Your task to perform on an android device: Open settings on Google Maps Image 0: 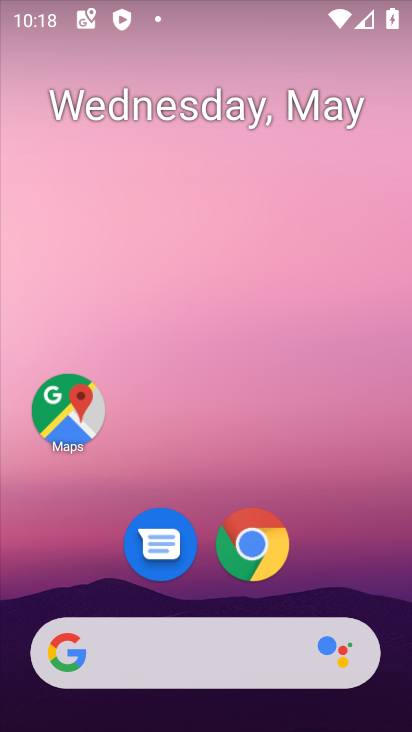
Step 0: drag from (246, 699) to (234, 114)
Your task to perform on an android device: Open settings on Google Maps Image 1: 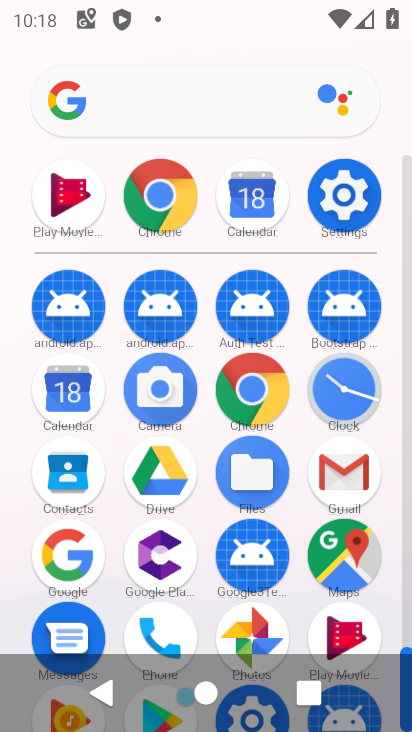
Step 1: click (344, 549)
Your task to perform on an android device: Open settings on Google Maps Image 2: 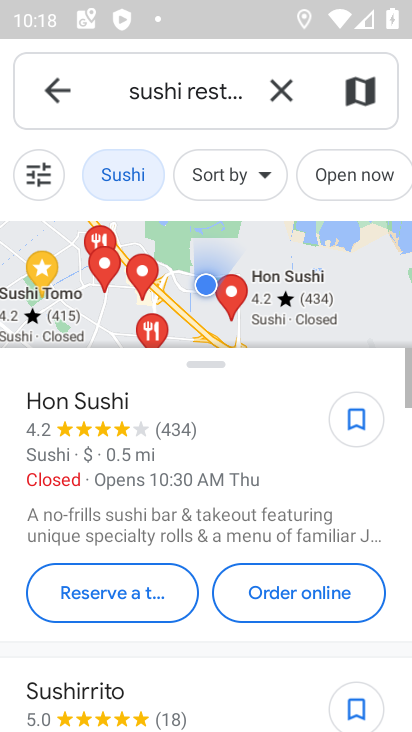
Step 2: press back button
Your task to perform on an android device: Open settings on Google Maps Image 3: 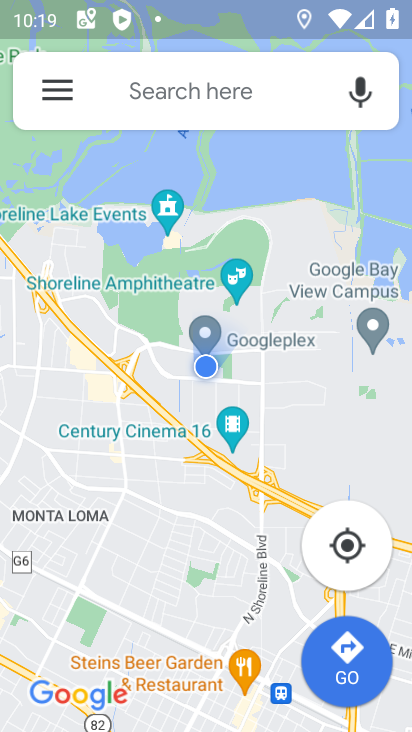
Step 3: click (68, 102)
Your task to perform on an android device: Open settings on Google Maps Image 4: 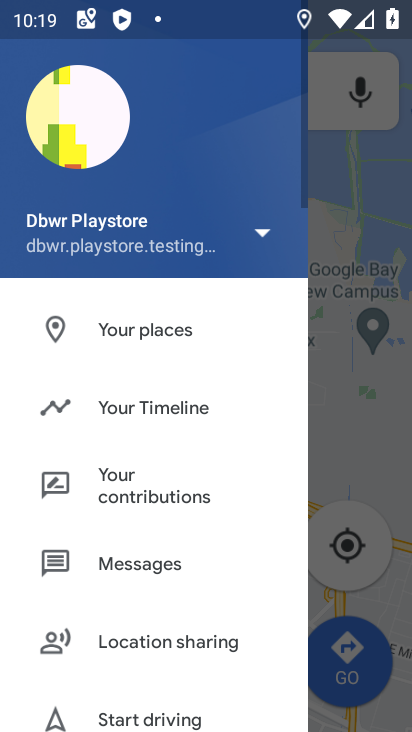
Step 4: drag from (212, 682) to (208, 179)
Your task to perform on an android device: Open settings on Google Maps Image 5: 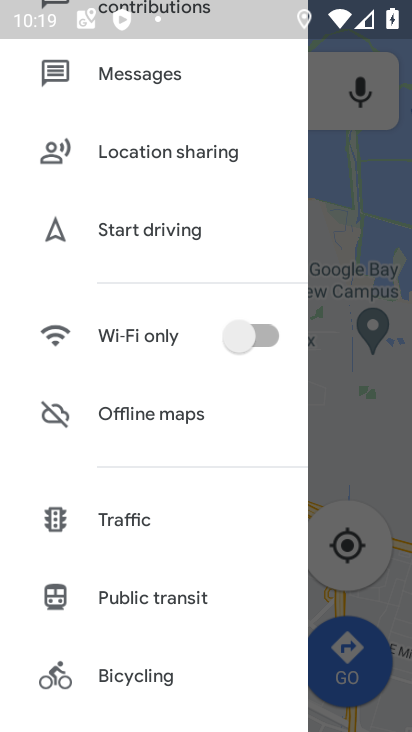
Step 5: drag from (167, 669) to (207, 333)
Your task to perform on an android device: Open settings on Google Maps Image 6: 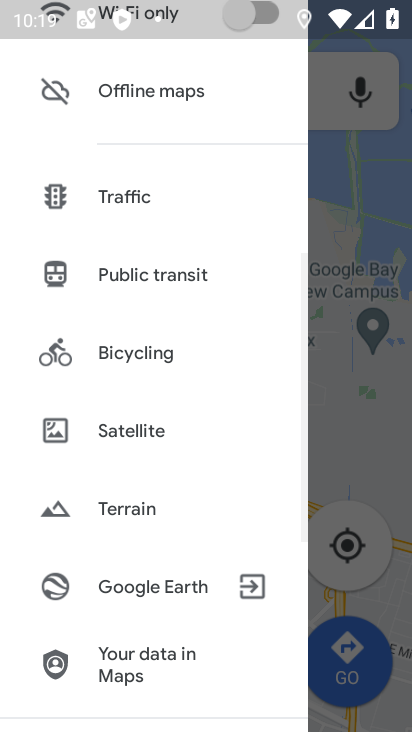
Step 6: drag from (216, 159) to (234, 626)
Your task to perform on an android device: Open settings on Google Maps Image 7: 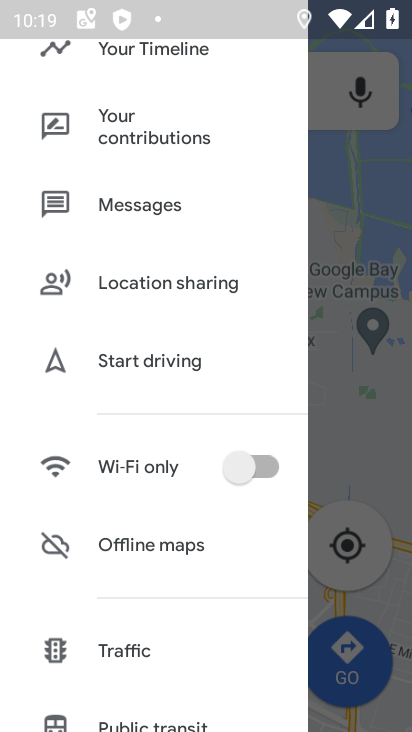
Step 7: drag from (153, 182) to (186, 587)
Your task to perform on an android device: Open settings on Google Maps Image 8: 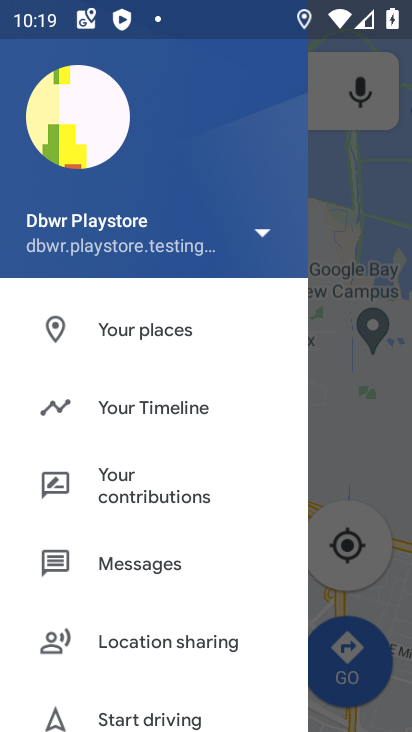
Step 8: click (207, 414)
Your task to perform on an android device: Open settings on Google Maps Image 9: 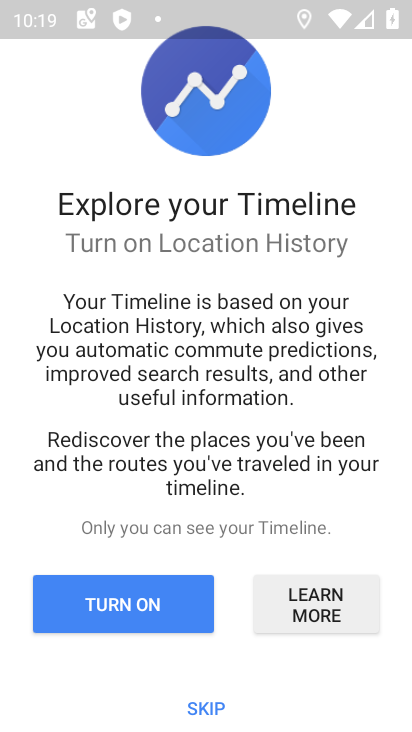
Step 9: click (215, 708)
Your task to perform on an android device: Open settings on Google Maps Image 10: 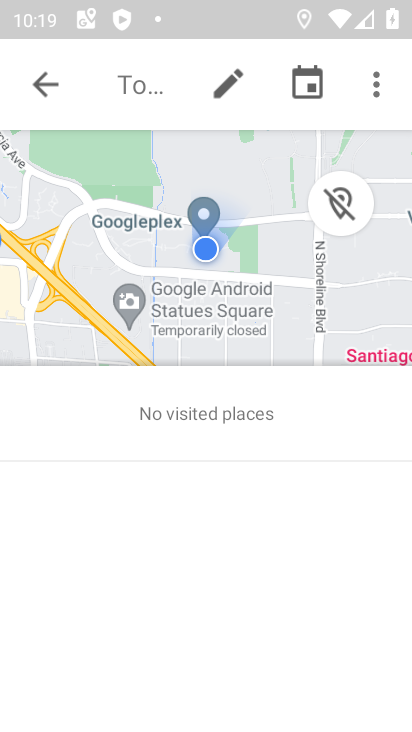
Step 10: click (376, 78)
Your task to perform on an android device: Open settings on Google Maps Image 11: 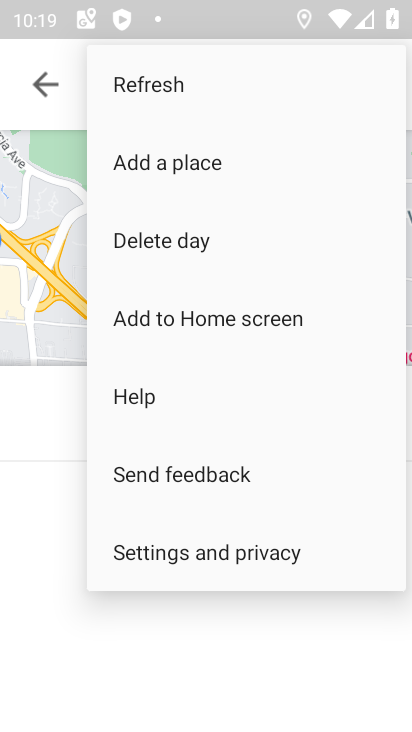
Step 11: click (238, 565)
Your task to perform on an android device: Open settings on Google Maps Image 12: 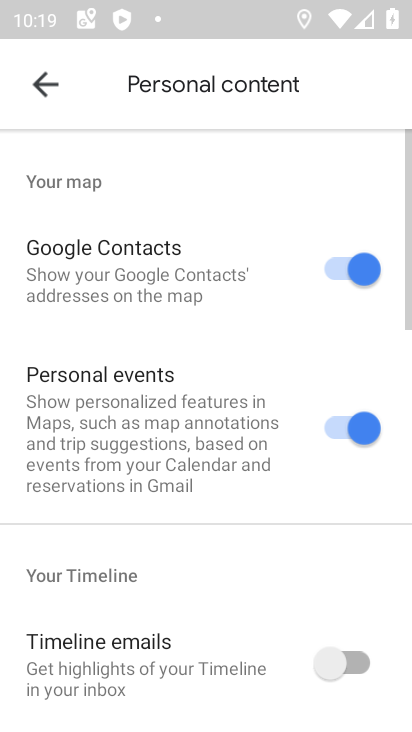
Step 12: task complete